Your task to perform on an android device: toggle pop-ups in chrome Image 0: 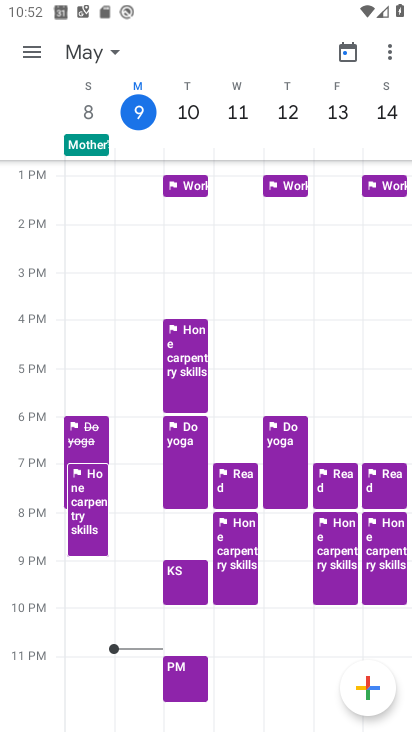
Step 0: press home button
Your task to perform on an android device: toggle pop-ups in chrome Image 1: 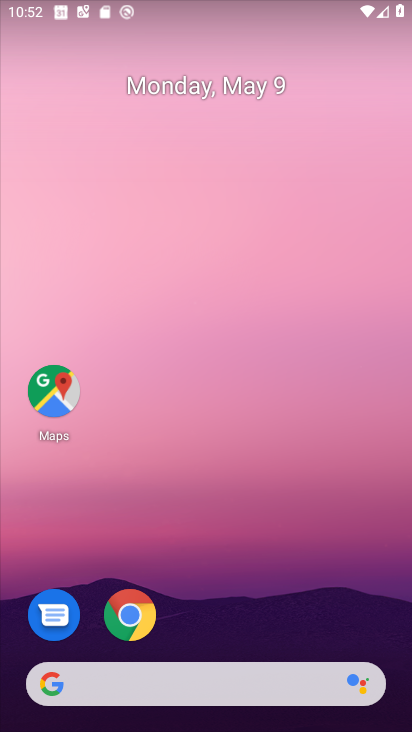
Step 1: drag from (229, 708) to (278, 233)
Your task to perform on an android device: toggle pop-ups in chrome Image 2: 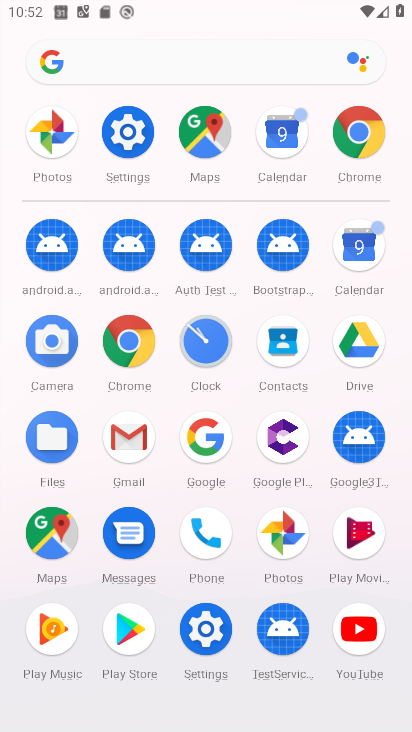
Step 2: click (344, 122)
Your task to perform on an android device: toggle pop-ups in chrome Image 3: 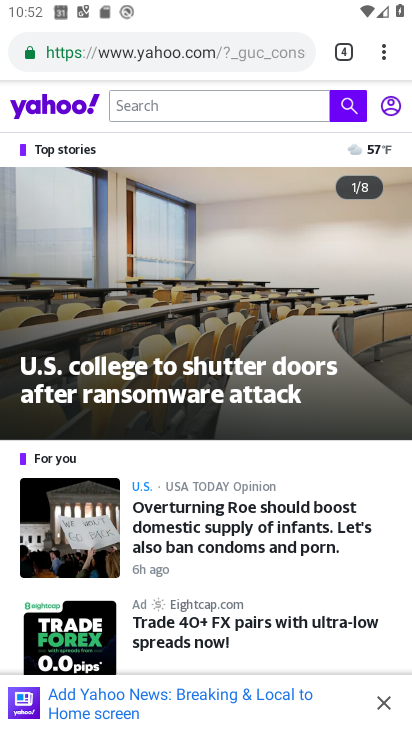
Step 3: click (380, 66)
Your task to perform on an android device: toggle pop-ups in chrome Image 4: 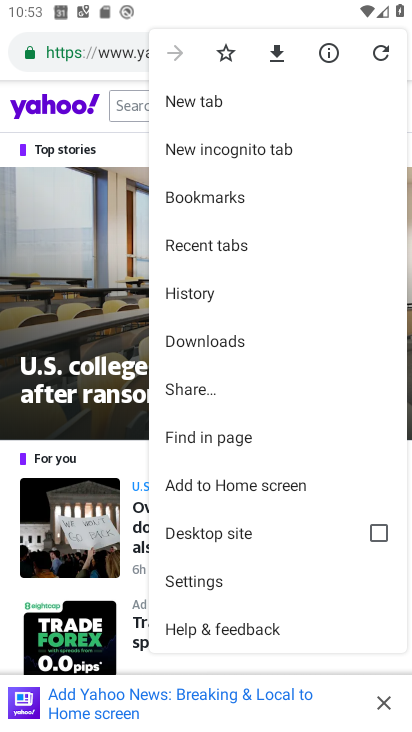
Step 4: click (197, 580)
Your task to perform on an android device: toggle pop-ups in chrome Image 5: 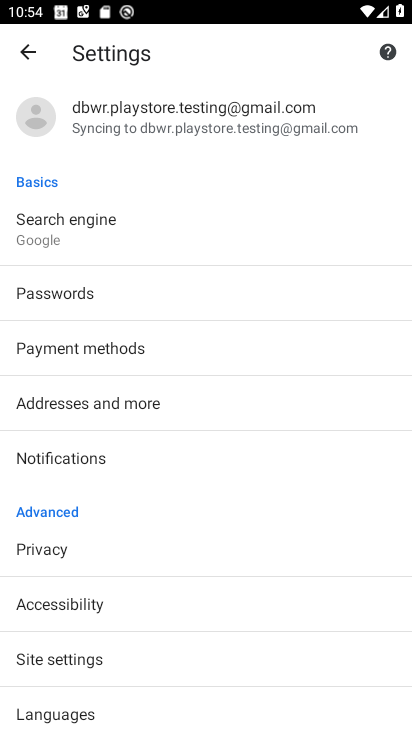
Step 5: click (81, 661)
Your task to perform on an android device: toggle pop-ups in chrome Image 6: 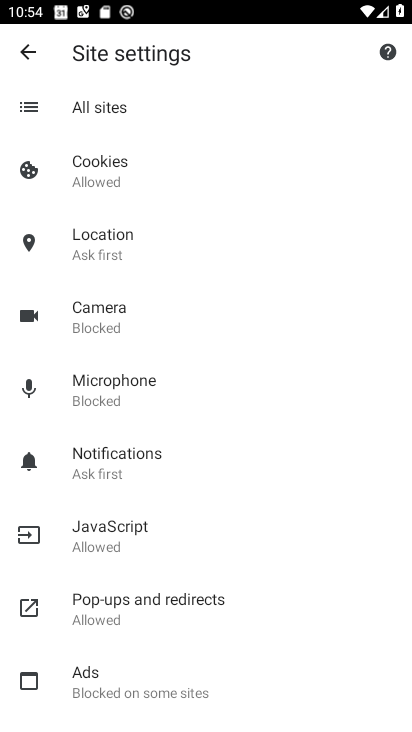
Step 6: click (133, 613)
Your task to perform on an android device: toggle pop-ups in chrome Image 7: 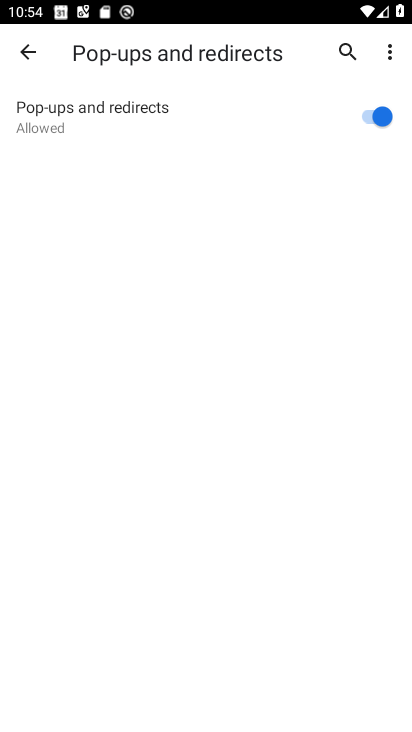
Step 7: task complete